Your task to perform on an android device: Open calendar and show me the second week of next month Image 0: 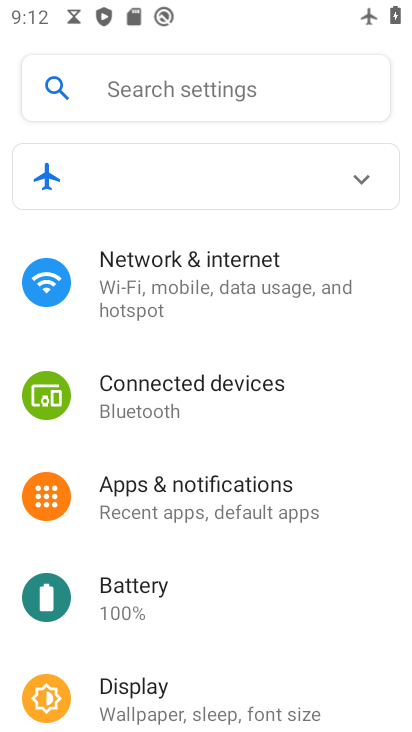
Step 0: press home button
Your task to perform on an android device: Open calendar and show me the second week of next month Image 1: 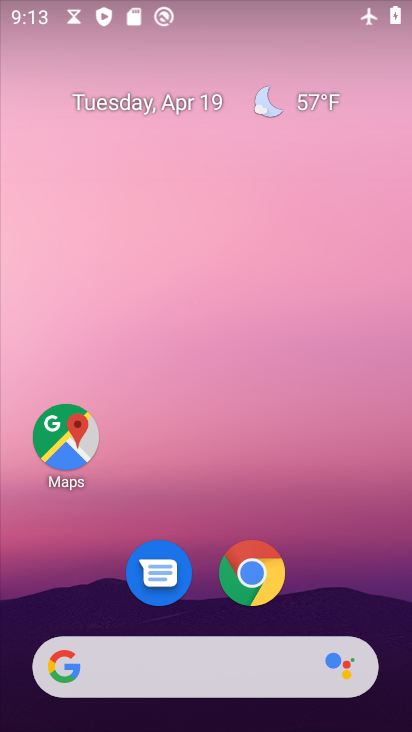
Step 1: drag from (292, 349) to (265, 53)
Your task to perform on an android device: Open calendar and show me the second week of next month Image 2: 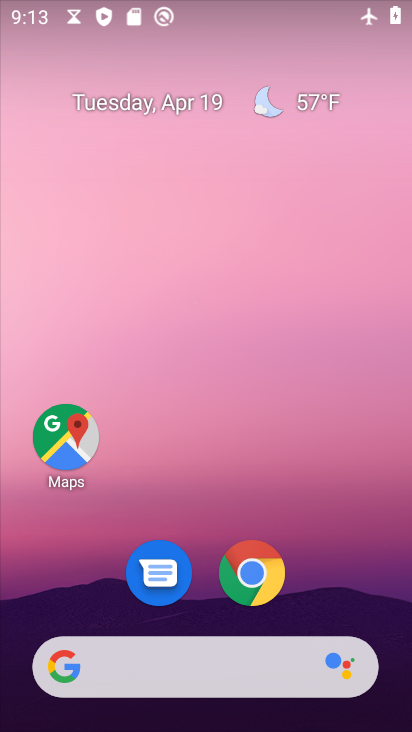
Step 2: drag from (317, 585) to (317, 52)
Your task to perform on an android device: Open calendar and show me the second week of next month Image 3: 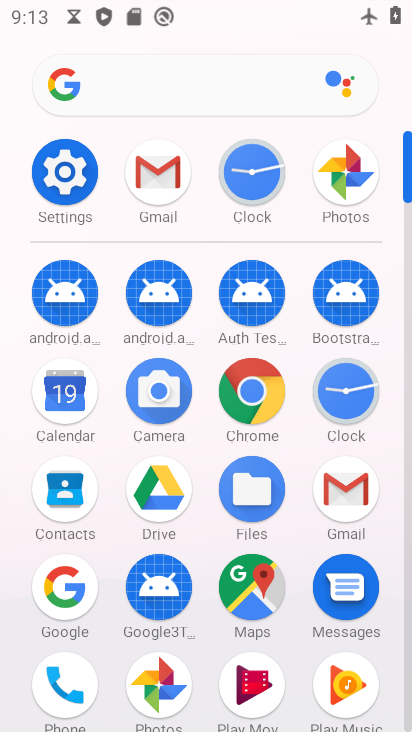
Step 3: click (61, 382)
Your task to perform on an android device: Open calendar and show me the second week of next month Image 4: 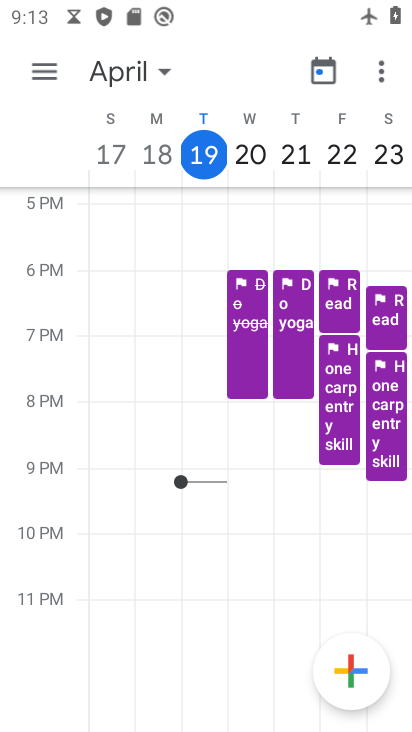
Step 4: drag from (353, 249) to (0, 153)
Your task to perform on an android device: Open calendar and show me the second week of next month Image 5: 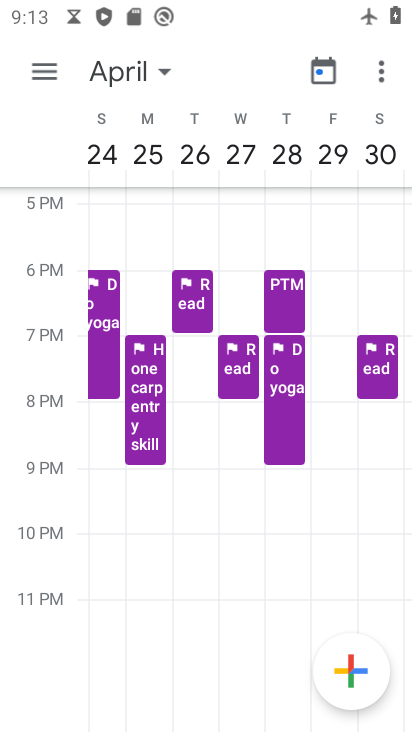
Step 5: click (153, 68)
Your task to perform on an android device: Open calendar and show me the second week of next month Image 6: 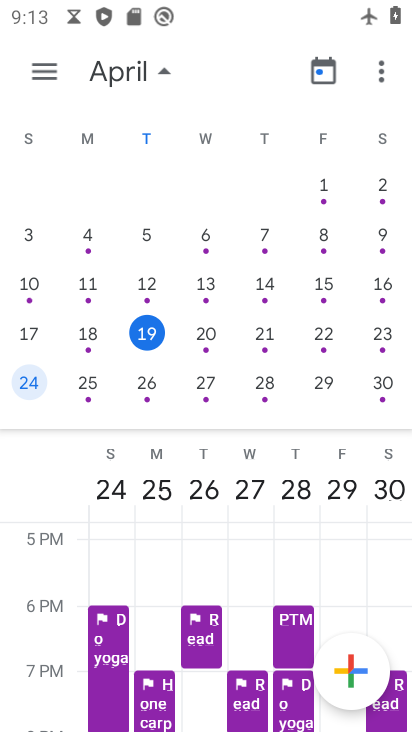
Step 6: drag from (337, 292) to (18, 243)
Your task to perform on an android device: Open calendar and show me the second week of next month Image 7: 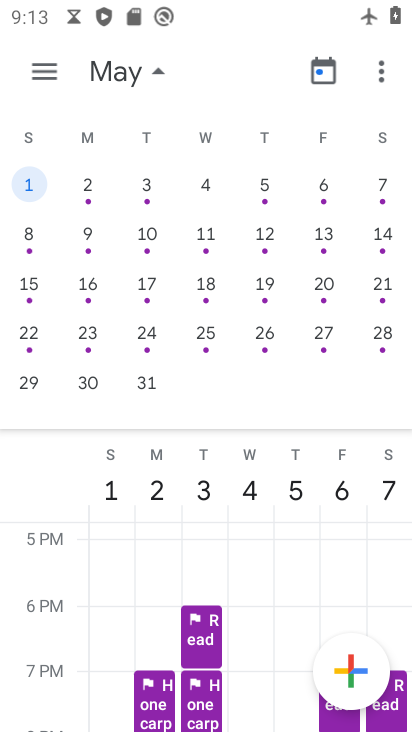
Step 7: click (38, 233)
Your task to perform on an android device: Open calendar and show me the second week of next month Image 8: 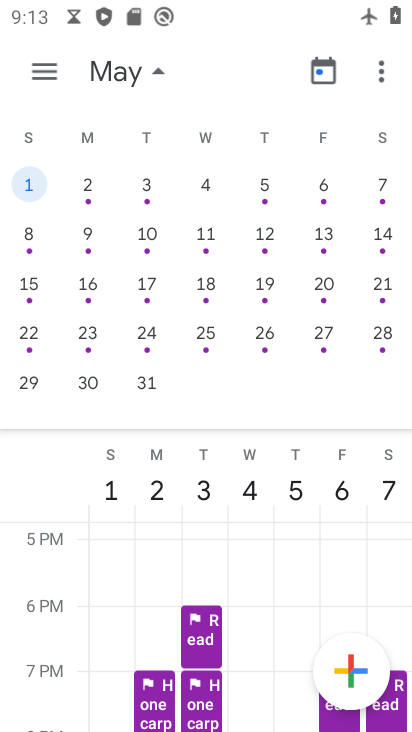
Step 8: click (38, 233)
Your task to perform on an android device: Open calendar and show me the second week of next month Image 9: 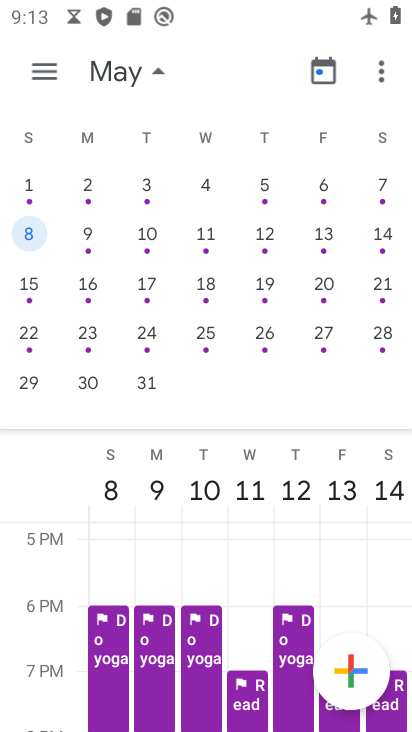
Step 9: task complete